Your task to perform on an android device: Go to Google Image 0: 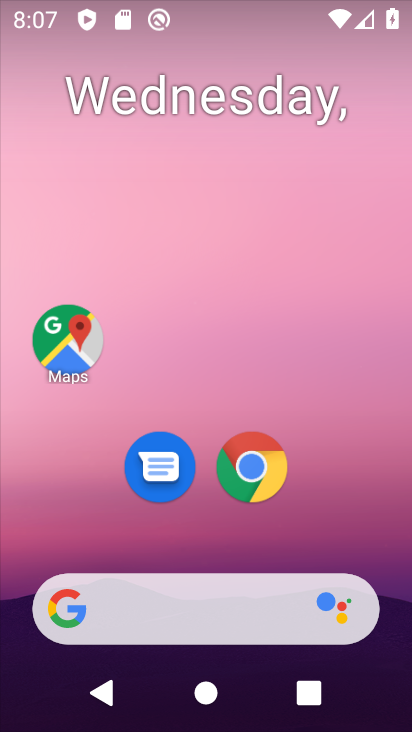
Step 0: drag from (372, 566) to (229, 112)
Your task to perform on an android device: Go to Google Image 1: 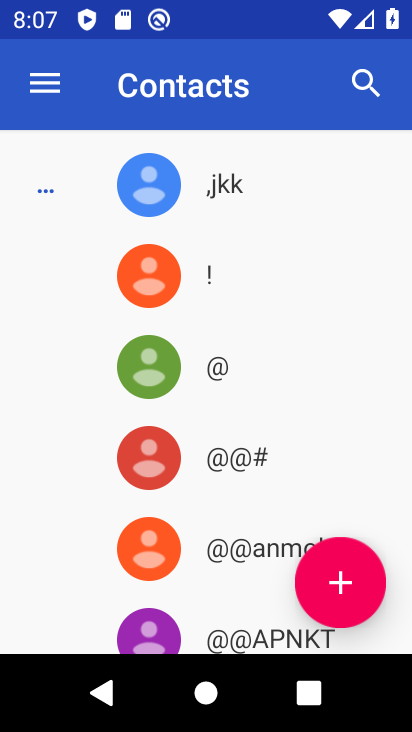
Step 1: press back button
Your task to perform on an android device: Go to Google Image 2: 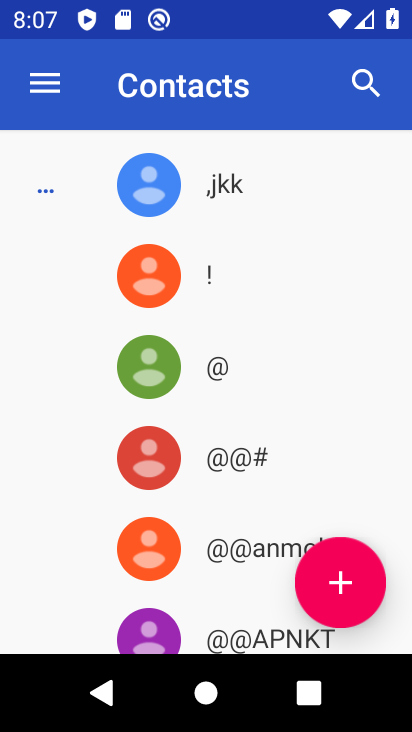
Step 2: press back button
Your task to perform on an android device: Go to Google Image 3: 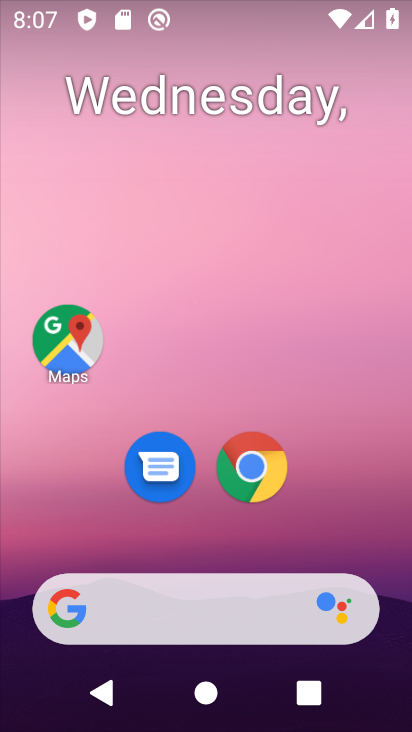
Step 3: drag from (318, 530) to (122, 4)
Your task to perform on an android device: Go to Google Image 4: 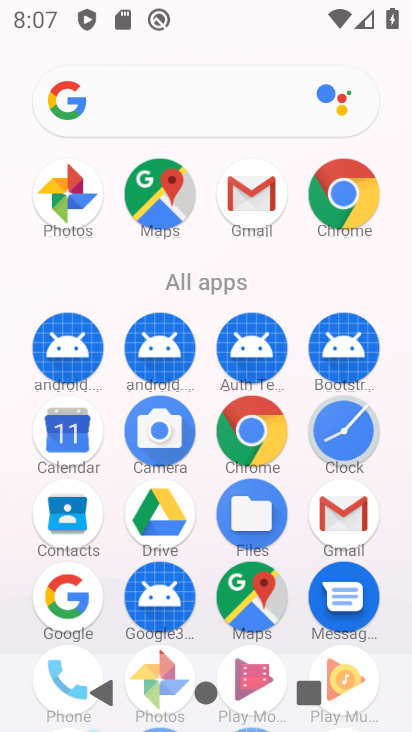
Step 4: click (75, 603)
Your task to perform on an android device: Go to Google Image 5: 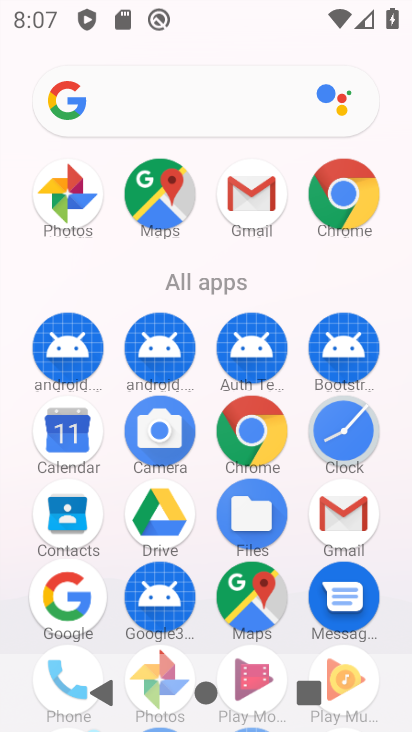
Step 5: click (75, 603)
Your task to perform on an android device: Go to Google Image 6: 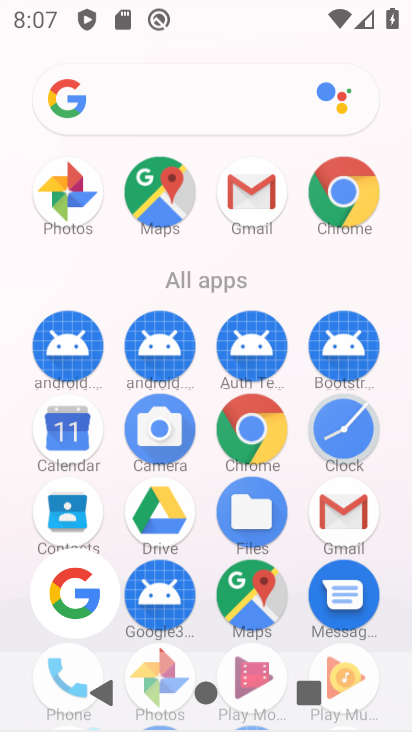
Step 6: click (61, 580)
Your task to perform on an android device: Go to Google Image 7: 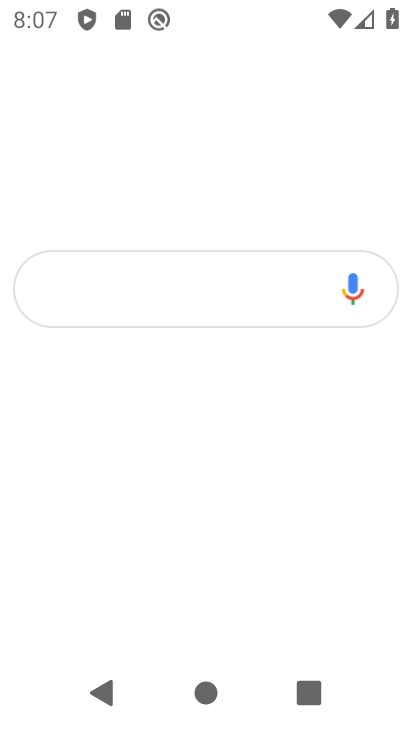
Step 7: click (64, 582)
Your task to perform on an android device: Go to Google Image 8: 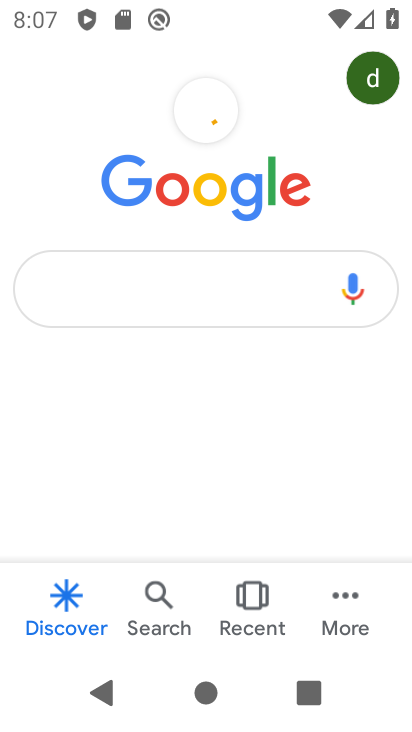
Step 8: drag from (172, 82) to (148, 29)
Your task to perform on an android device: Go to Google Image 9: 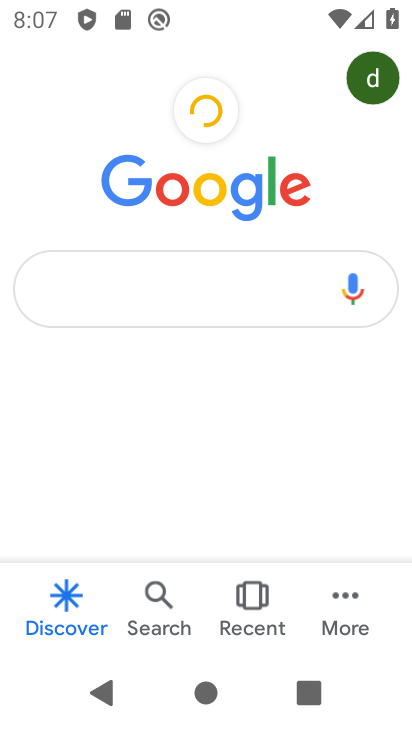
Step 9: click (195, 88)
Your task to perform on an android device: Go to Google Image 10: 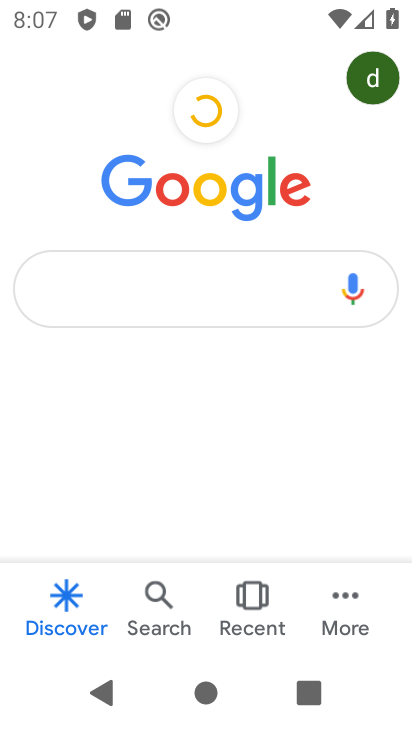
Step 10: drag from (243, 454) to (194, 127)
Your task to perform on an android device: Go to Google Image 11: 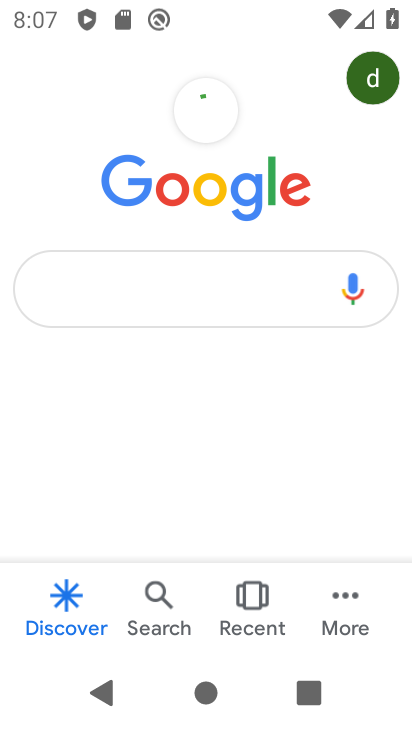
Step 11: drag from (213, 499) to (154, 120)
Your task to perform on an android device: Go to Google Image 12: 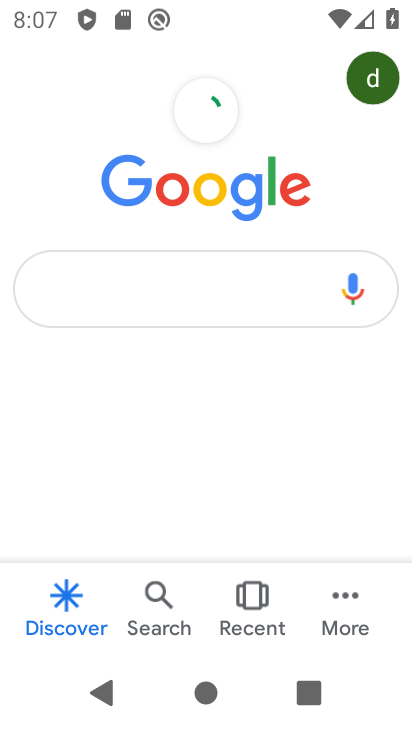
Step 12: drag from (216, 351) to (206, 96)
Your task to perform on an android device: Go to Google Image 13: 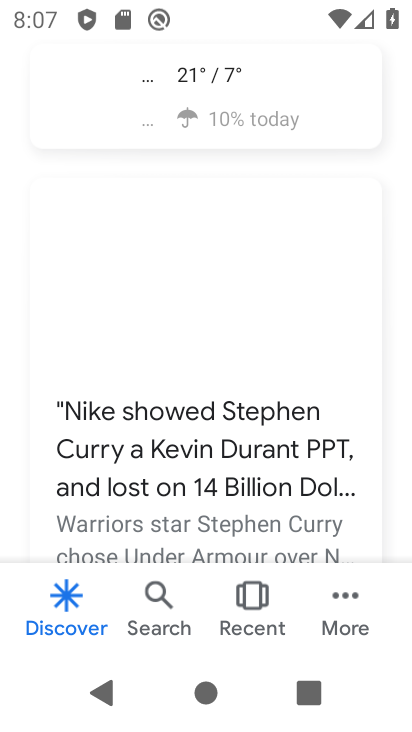
Step 13: drag from (242, 392) to (229, 175)
Your task to perform on an android device: Go to Google Image 14: 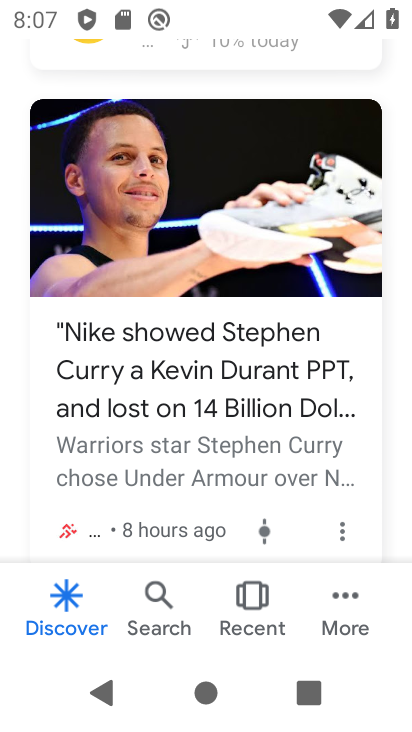
Step 14: drag from (199, 456) to (153, 208)
Your task to perform on an android device: Go to Google Image 15: 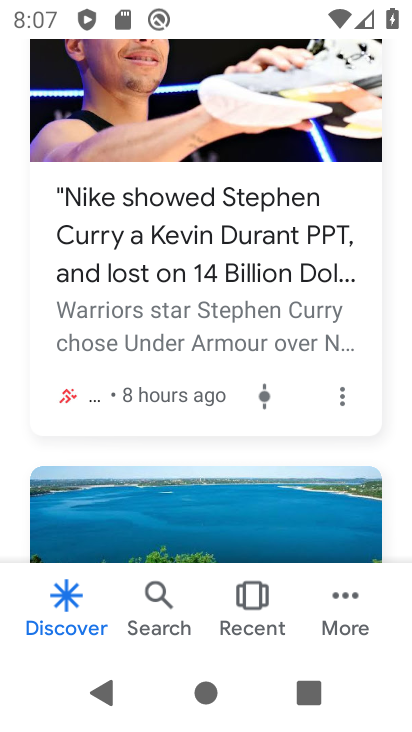
Step 15: drag from (198, 517) to (198, 149)
Your task to perform on an android device: Go to Google Image 16: 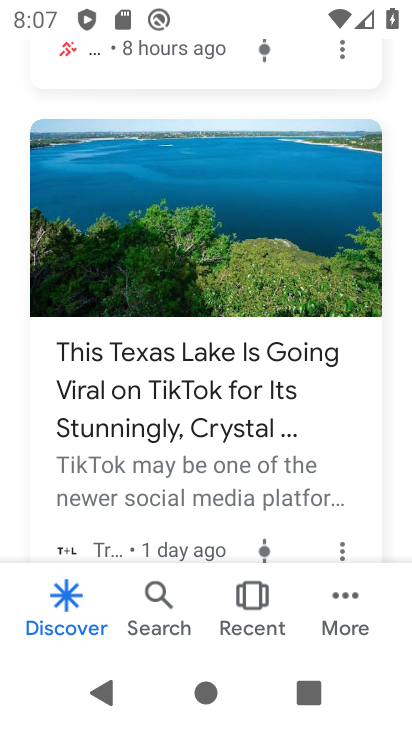
Step 16: drag from (239, 471) to (159, 140)
Your task to perform on an android device: Go to Google Image 17: 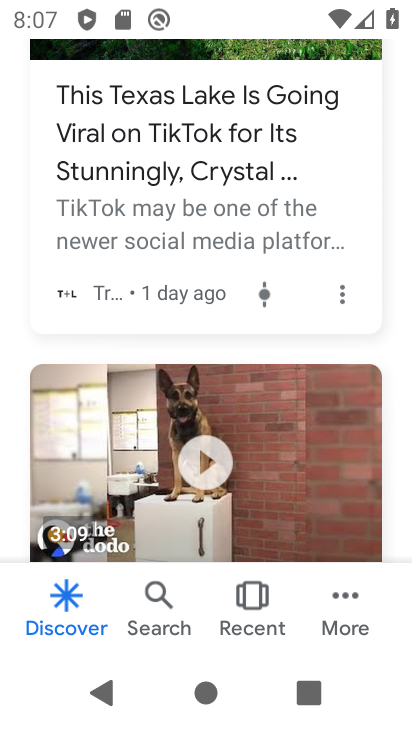
Step 17: drag from (186, 435) to (112, 288)
Your task to perform on an android device: Go to Google Image 18: 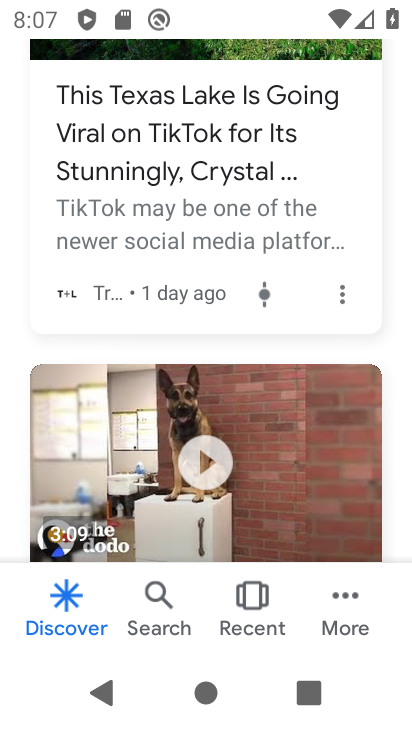
Step 18: drag from (215, 516) to (79, 65)
Your task to perform on an android device: Go to Google Image 19: 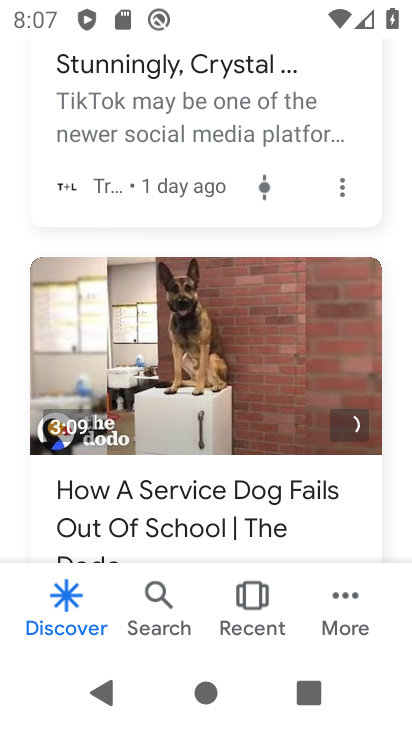
Step 19: drag from (181, 341) to (175, 6)
Your task to perform on an android device: Go to Google Image 20: 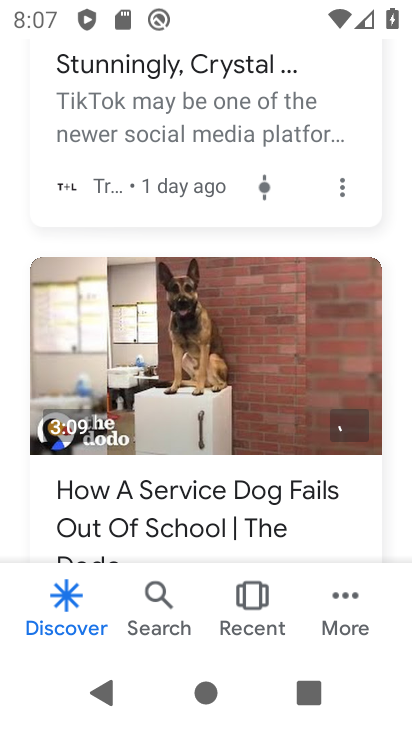
Step 20: drag from (213, 366) to (111, 23)
Your task to perform on an android device: Go to Google Image 21: 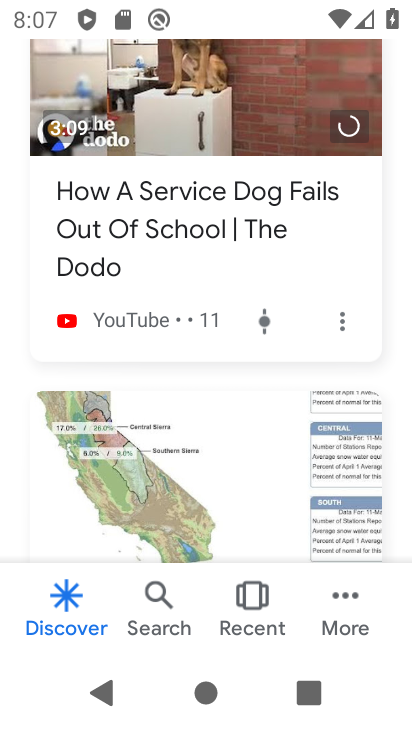
Step 21: drag from (187, 346) to (73, 80)
Your task to perform on an android device: Go to Google Image 22: 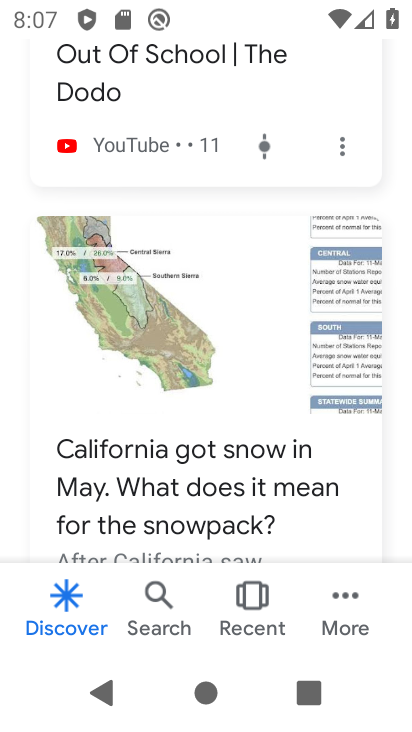
Step 22: drag from (175, 518) to (131, 36)
Your task to perform on an android device: Go to Google Image 23: 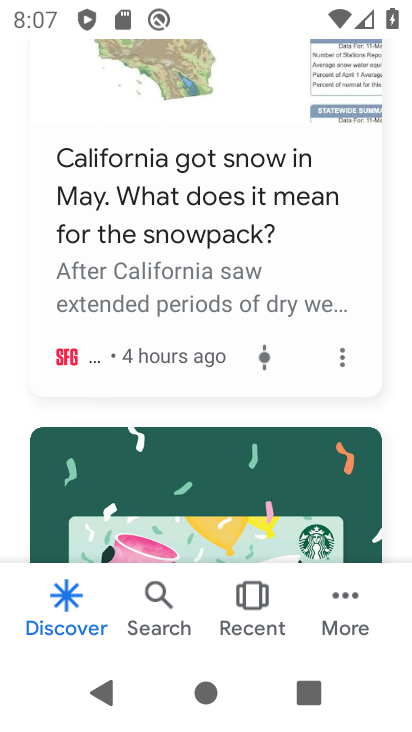
Step 23: drag from (240, 438) to (215, 124)
Your task to perform on an android device: Go to Google Image 24: 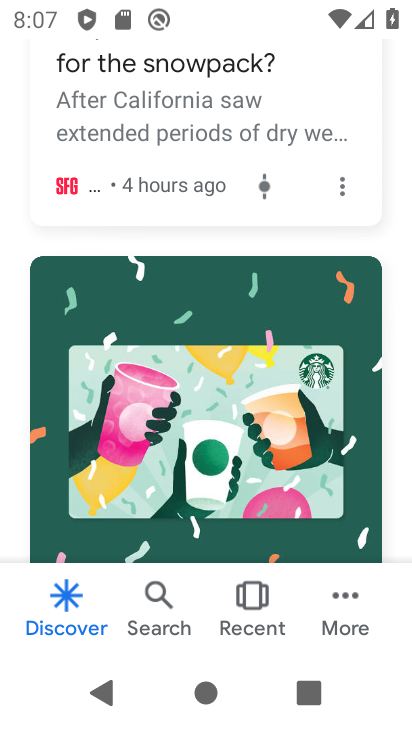
Step 24: drag from (228, 326) to (132, 8)
Your task to perform on an android device: Go to Google Image 25: 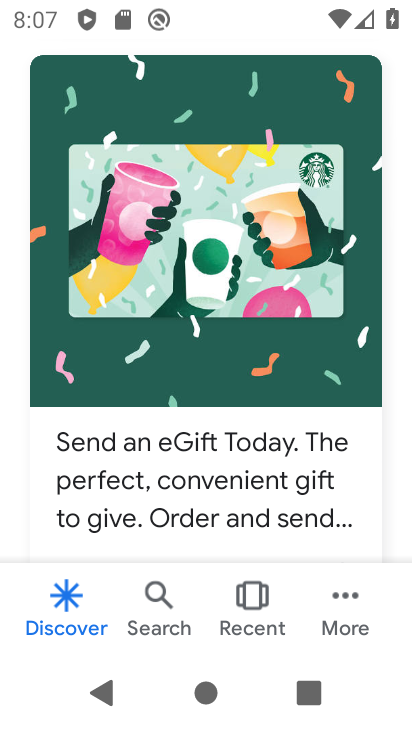
Step 25: click (191, 42)
Your task to perform on an android device: Go to Google Image 26: 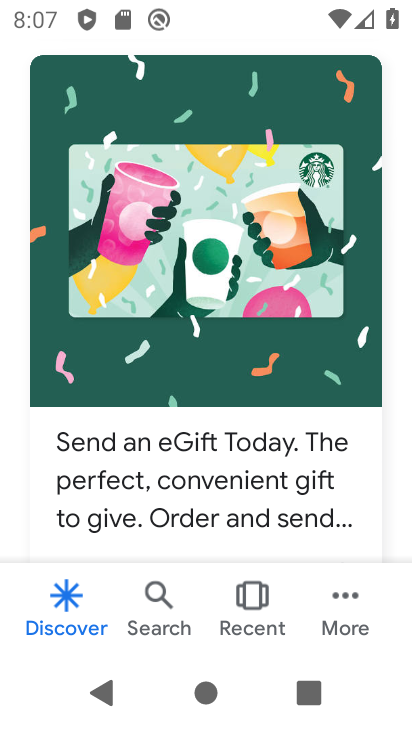
Step 26: task complete